Your task to perform on an android device: Go to location settings Image 0: 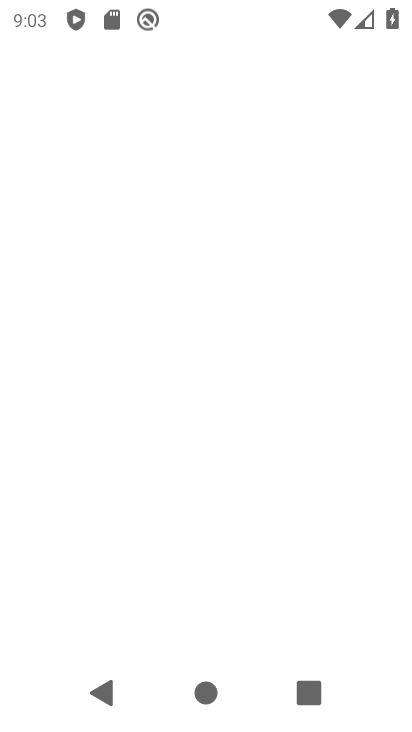
Step 0: press home button
Your task to perform on an android device: Go to location settings Image 1: 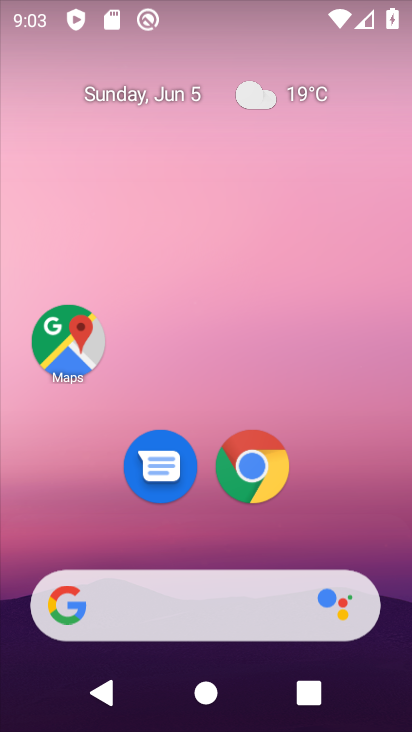
Step 1: drag from (112, 573) to (202, 56)
Your task to perform on an android device: Go to location settings Image 2: 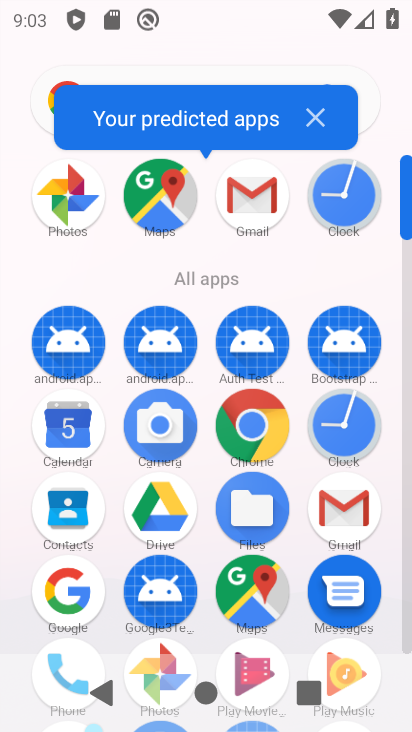
Step 2: drag from (176, 645) to (219, 397)
Your task to perform on an android device: Go to location settings Image 3: 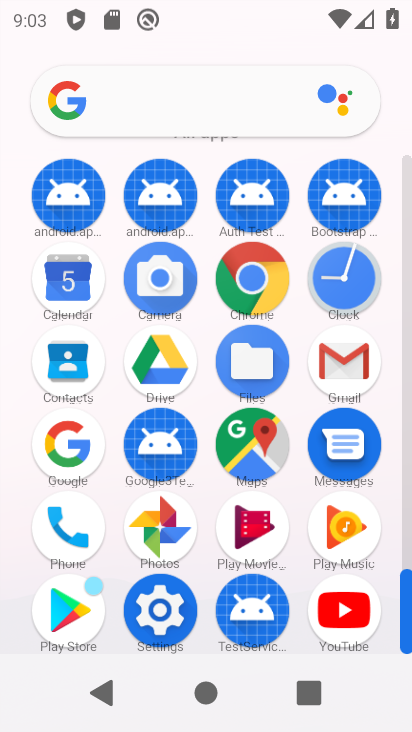
Step 3: click (167, 621)
Your task to perform on an android device: Go to location settings Image 4: 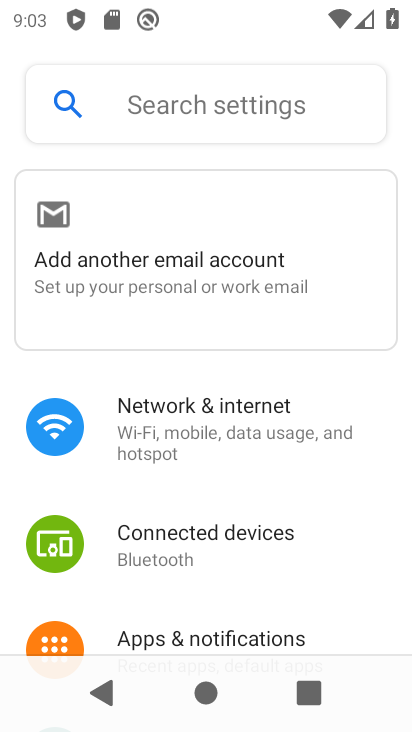
Step 4: drag from (155, 614) to (232, 162)
Your task to perform on an android device: Go to location settings Image 5: 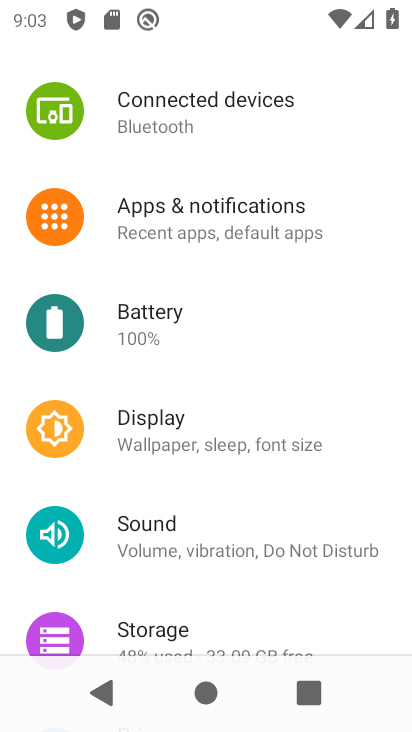
Step 5: drag from (161, 606) to (237, 198)
Your task to perform on an android device: Go to location settings Image 6: 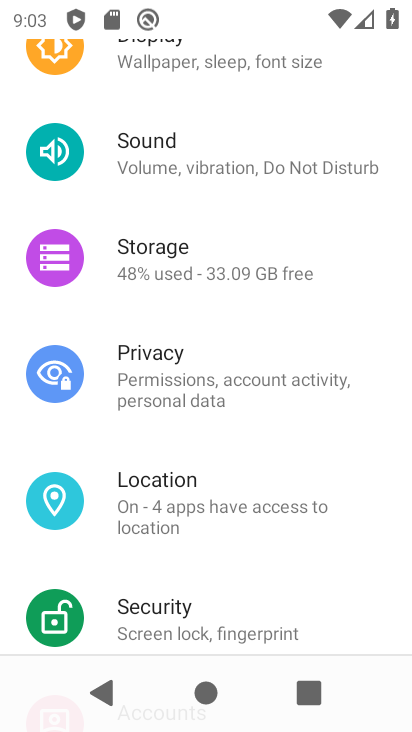
Step 6: click (173, 508)
Your task to perform on an android device: Go to location settings Image 7: 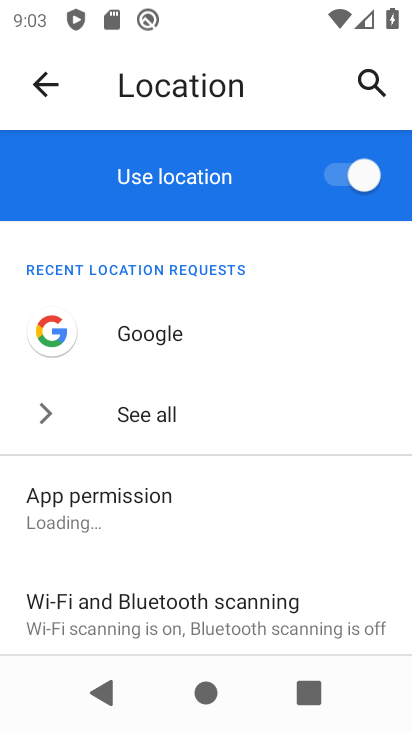
Step 7: task complete